Your task to perform on an android device: check battery use Image 0: 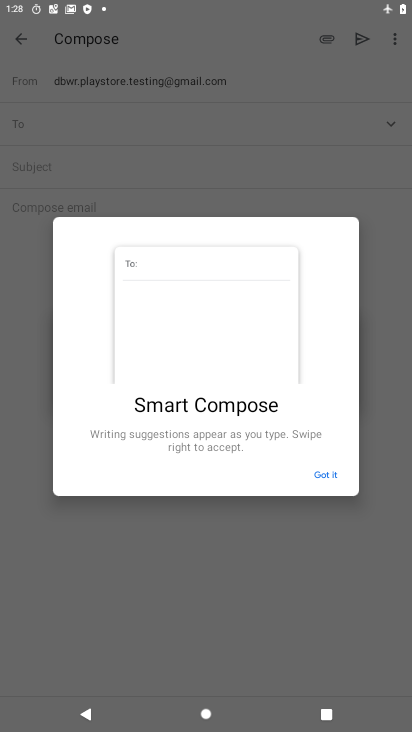
Step 0: press home button
Your task to perform on an android device: check battery use Image 1: 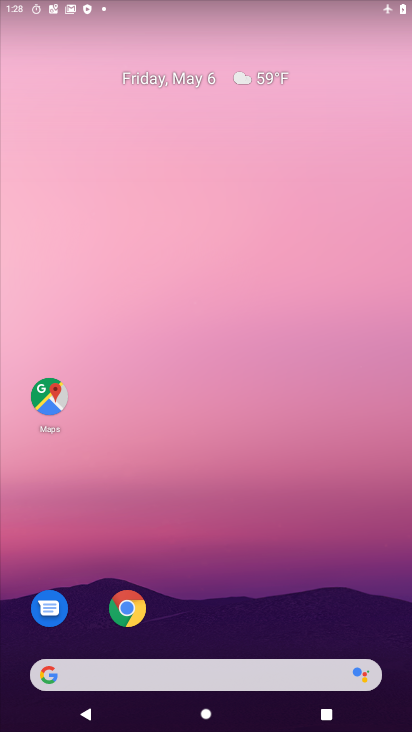
Step 1: drag from (162, 638) to (204, 131)
Your task to perform on an android device: check battery use Image 2: 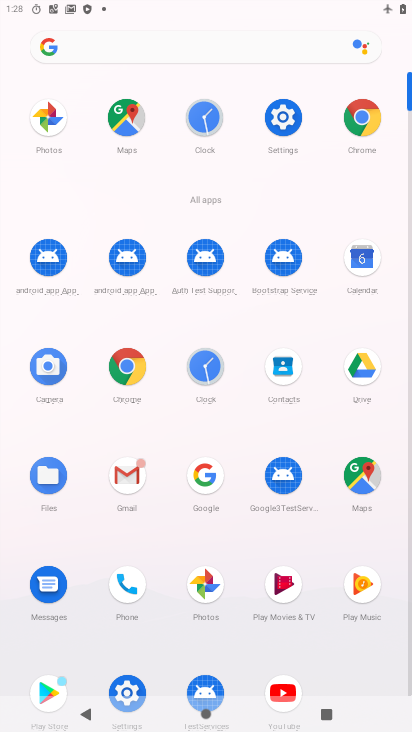
Step 2: click (283, 117)
Your task to perform on an android device: check battery use Image 3: 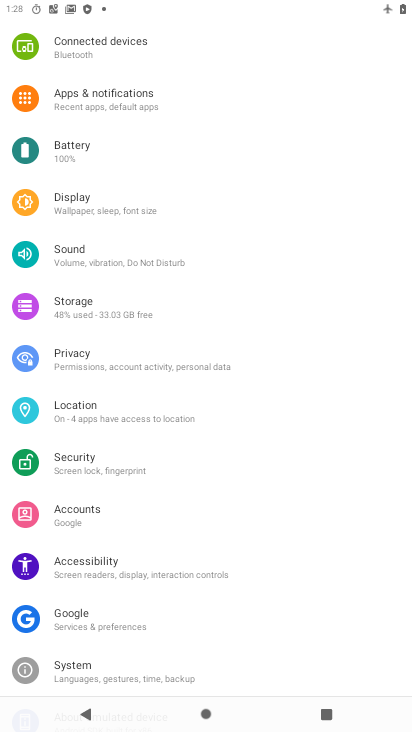
Step 3: click (77, 156)
Your task to perform on an android device: check battery use Image 4: 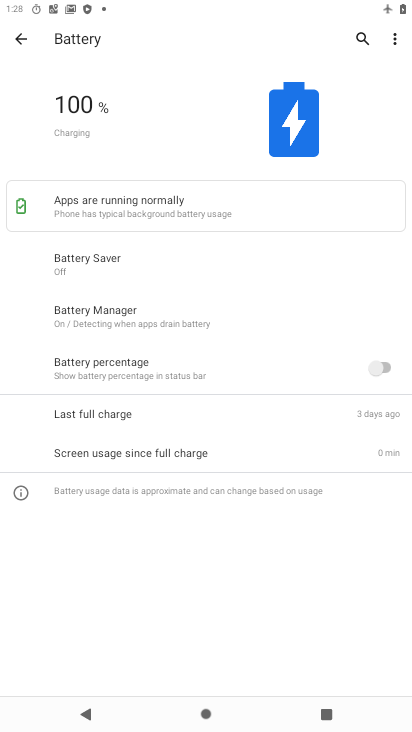
Step 4: task complete